Your task to perform on an android device: choose inbox layout in the gmail app Image 0: 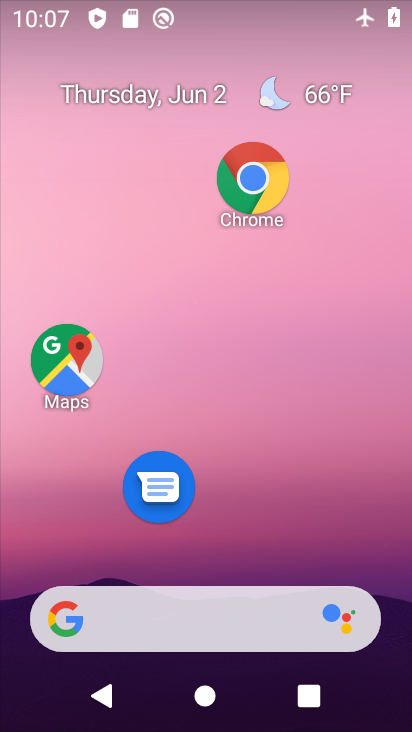
Step 0: drag from (230, 728) to (200, 51)
Your task to perform on an android device: choose inbox layout in the gmail app Image 1: 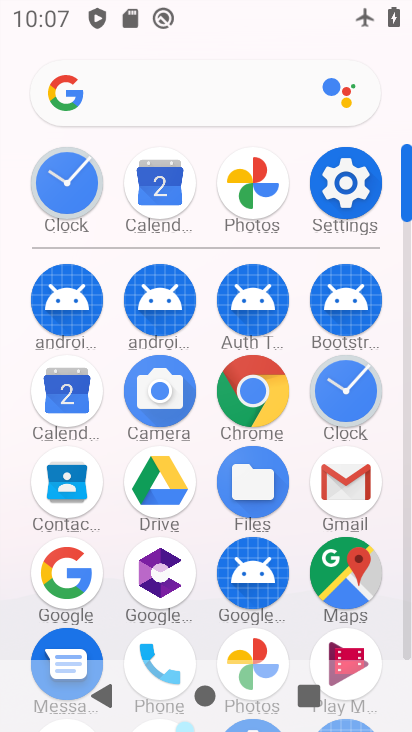
Step 1: click (345, 485)
Your task to perform on an android device: choose inbox layout in the gmail app Image 2: 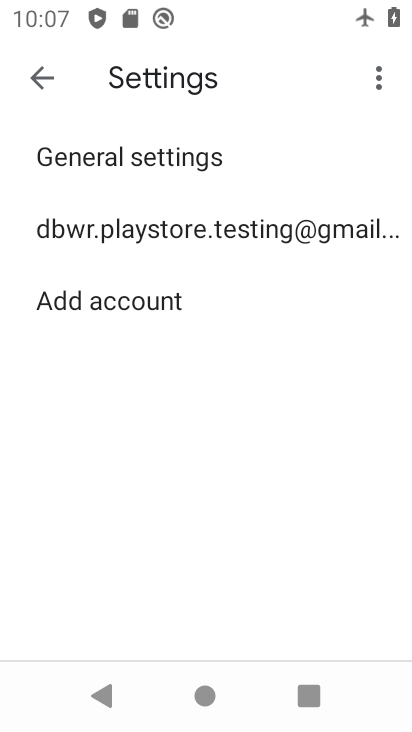
Step 2: click (164, 228)
Your task to perform on an android device: choose inbox layout in the gmail app Image 3: 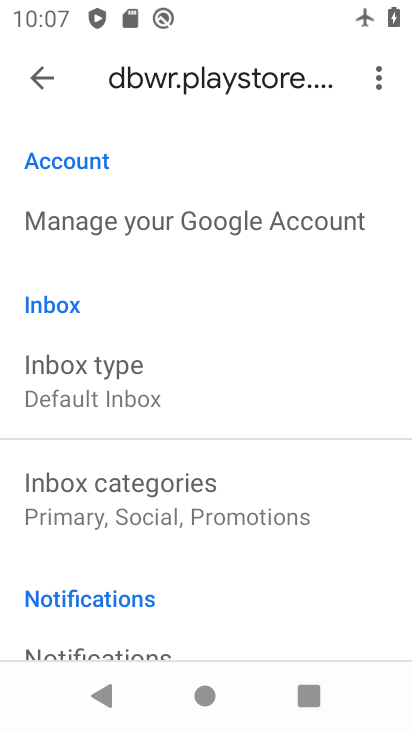
Step 3: click (83, 390)
Your task to perform on an android device: choose inbox layout in the gmail app Image 4: 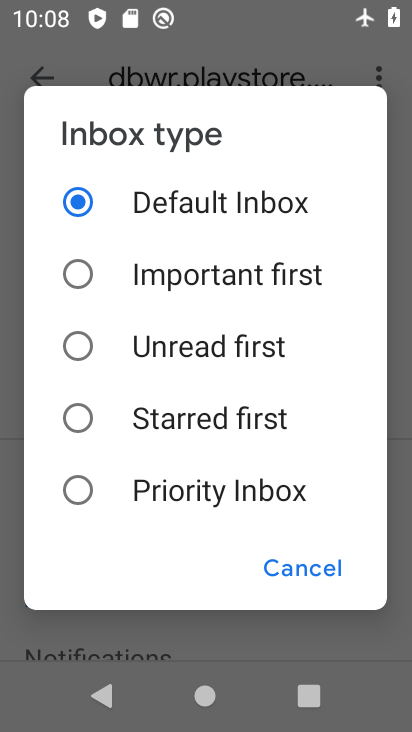
Step 4: click (75, 491)
Your task to perform on an android device: choose inbox layout in the gmail app Image 5: 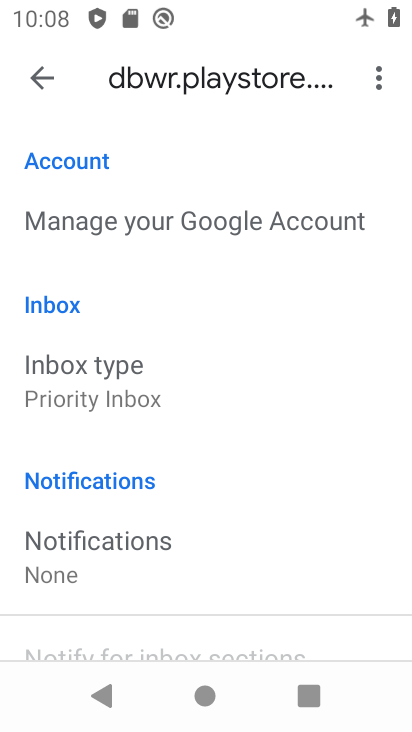
Step 5: task complete